Your task to perform on an android device: Go to internet settings Image 0: 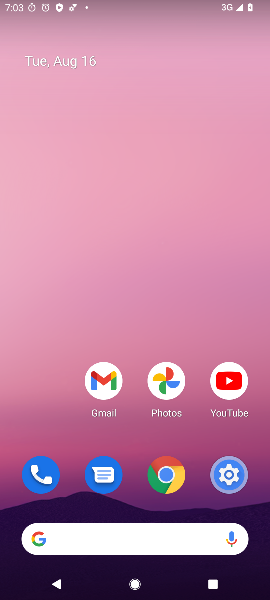
Step 0: drag from (207, 503) to (116, 57)
Your task to perform on an android device: Go to internet settings Image 1: 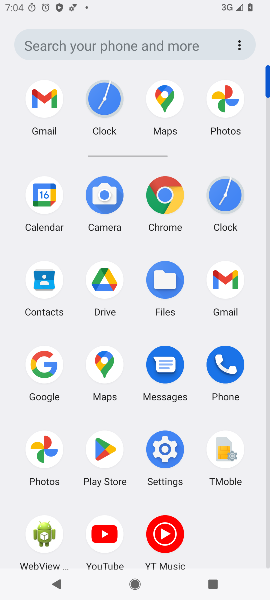
Step 1: click (157, 450)
Your task to perform on an android device: Go to internet settings Image 2: 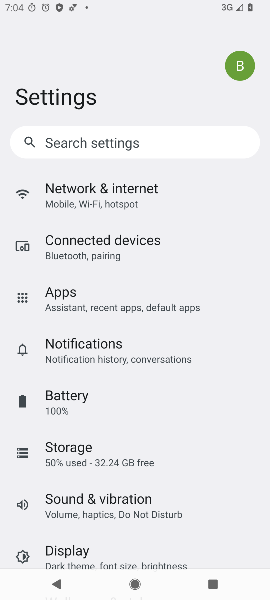
Step 2: click (87, 199)
Your task to perform on an android device: Go to internet settings Image 3: 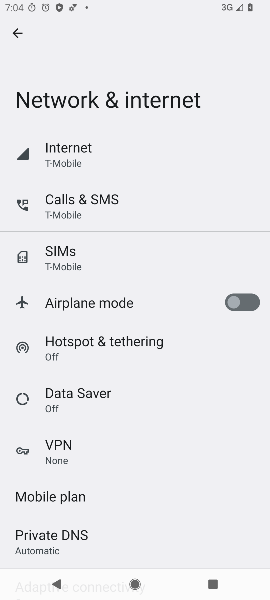
Step 3: task complete